Your task to perform on an android device: Turn off the flashlight Image 0: 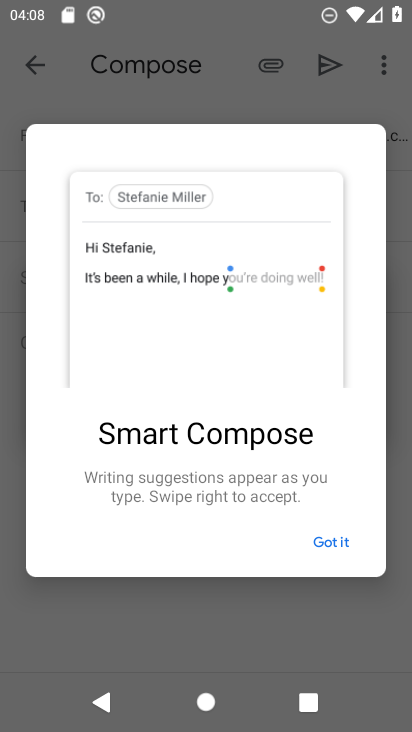
Step 0: press home button
Your task to perform on an android device: Turn off the flashlight Image 1: 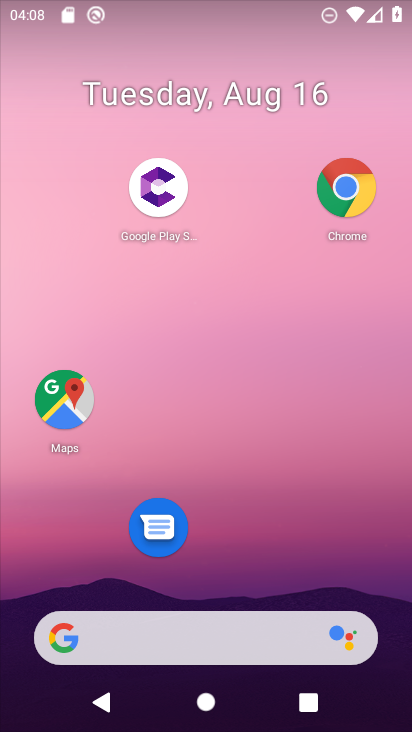
Step 1: drag from (238, 216) to (243, 0)
Your task to perform on an android device: Turn off the flashlight Image 2: 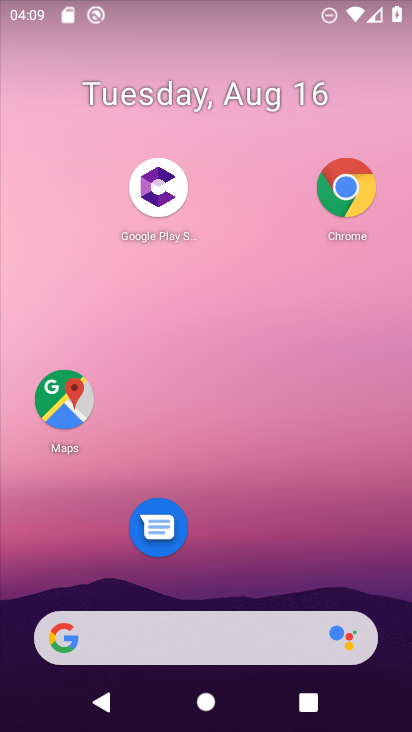
Step 2: drag from (222, 585) to (240, 8)
Your task to perform on an android device: Turn off the flashlight Image 3: 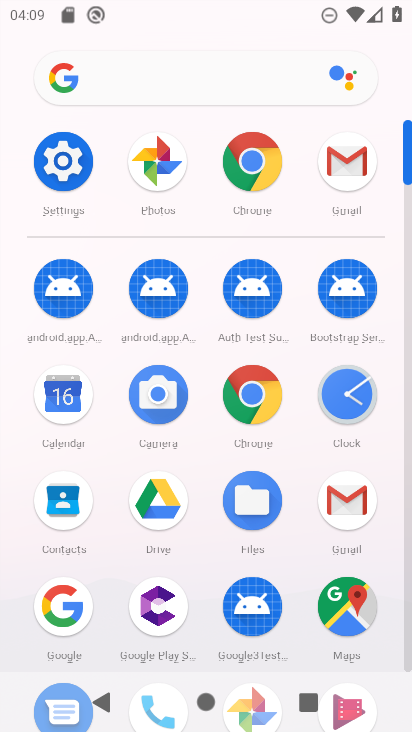
Step 3: click (60, 159)
Your task to perform on an android device: Turn off the flashlight Image 4: 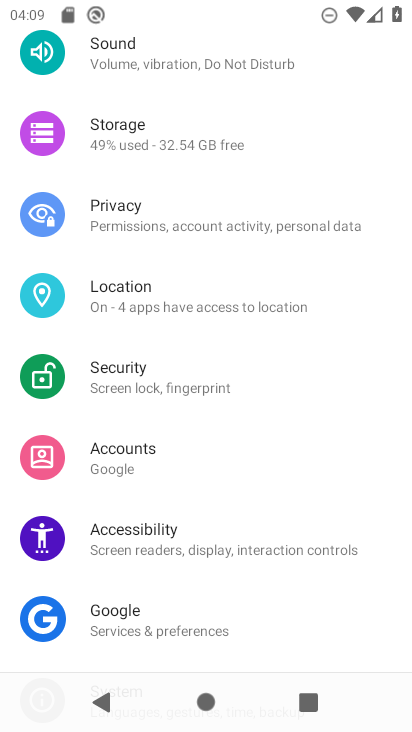
Step 4: drag from (138, 88) to (143, 640)
Your task to perform on an android device: Turn off the flashlight Image 5: 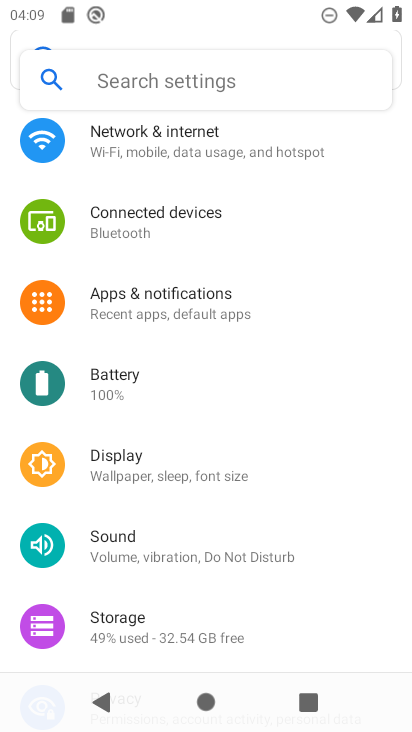
Step 5: click (146, 75)
Your task to perform on an android device: Turn off the flashlight Image 6: 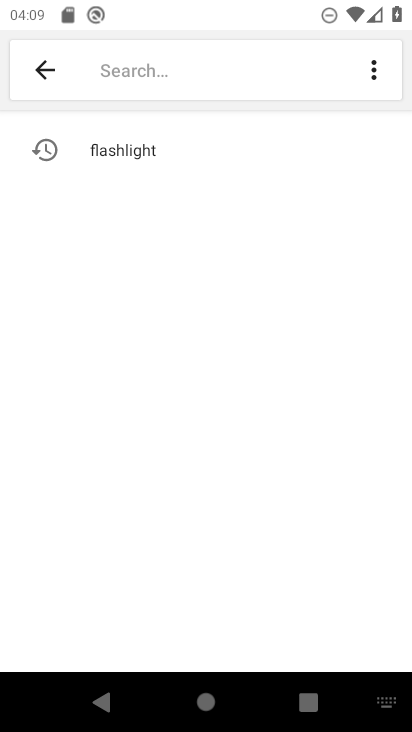
Step 6: click (107, 151)
Your task to perform on an android device: Turn off the flashlight Image 7: 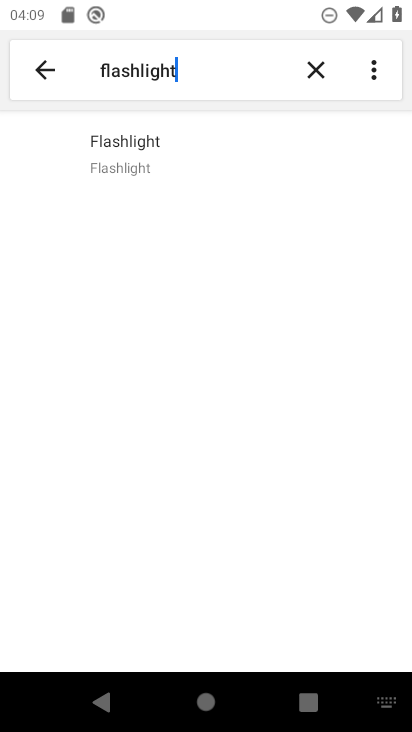
Step 7: click (134, 148)
Your task to perform on an android device: Turn off the flashlight Image 8: 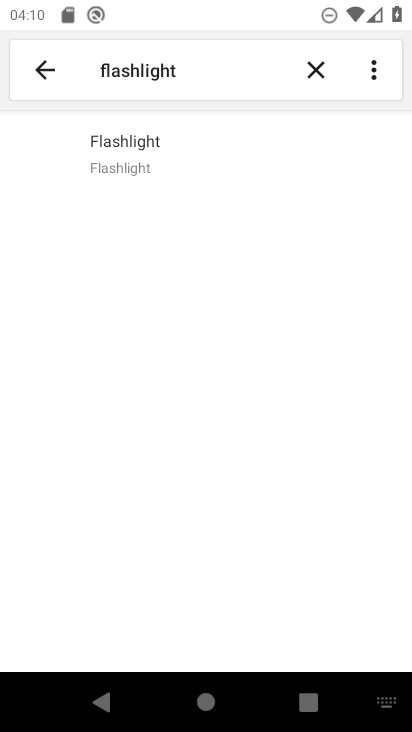
Step 8: click (132, 162)
Your task to perform on an android device: Turn off the flashlight Image 9: 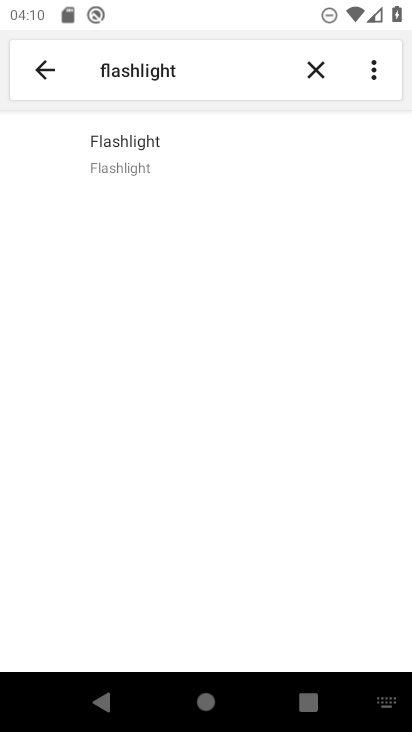
Step 9: task complete